Your task to perform on an android device: Search for vegetarian restaurants on Maps Image 0: 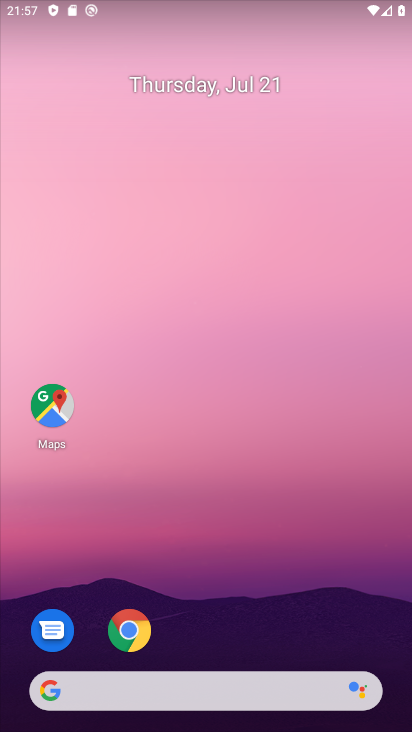
Step 0: drag from (215, 660) to (212, 47)
Your task to perform on an android device: Search for vegetarian restaurants on Maps Image 1: 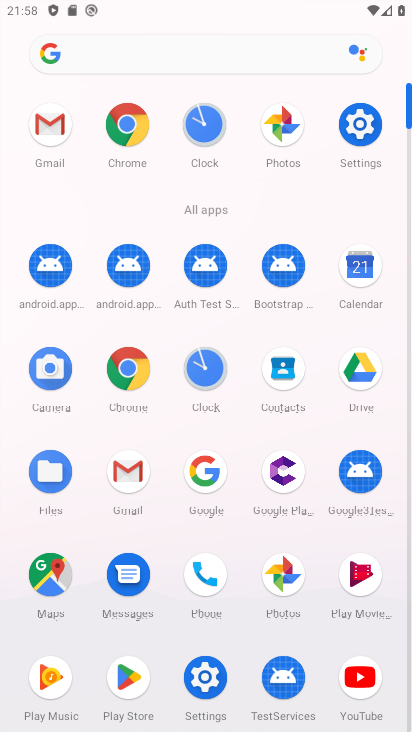
Step 1: click (54, 581)
Your task to perform on an android device: Search for vegetarian restaurants on Maps Image 2: 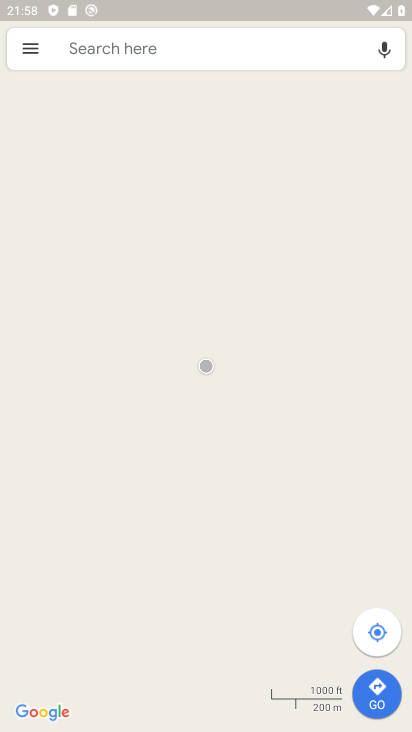
Step 2: click (127, 47)
Your task to perform on an android device: Search for vegetarian restaurants on Maps Image 3: 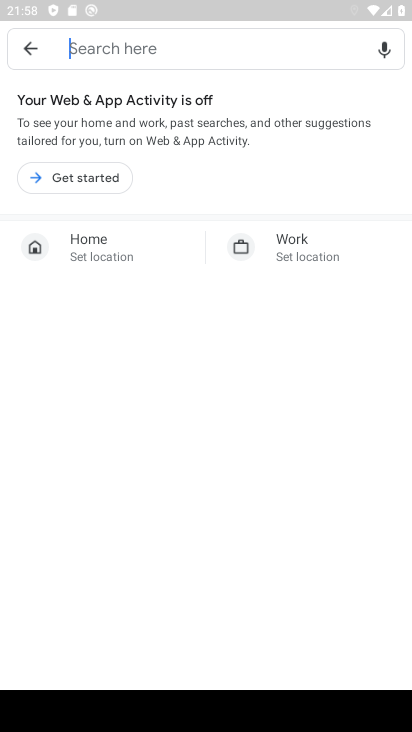
Step 3: click (89, 188)
Your task to perform on an android device: Search for vegetarian restaurants on Maps Image 4: 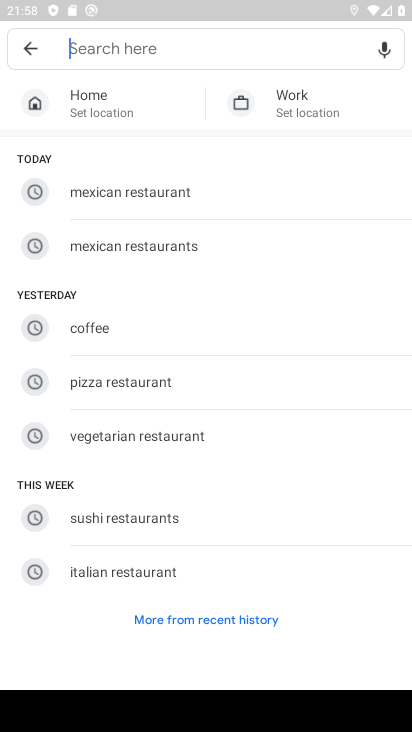
Step 4: click (115, 436)
Your task to perform on an android device: Search for vegetarian restaurants on Maps Image 5: 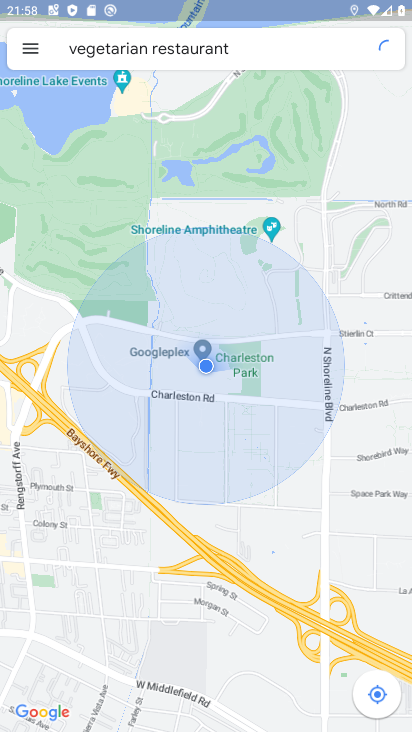
Step 5: task complete